Your task to perform on an android device: Open battery settings Image 0: 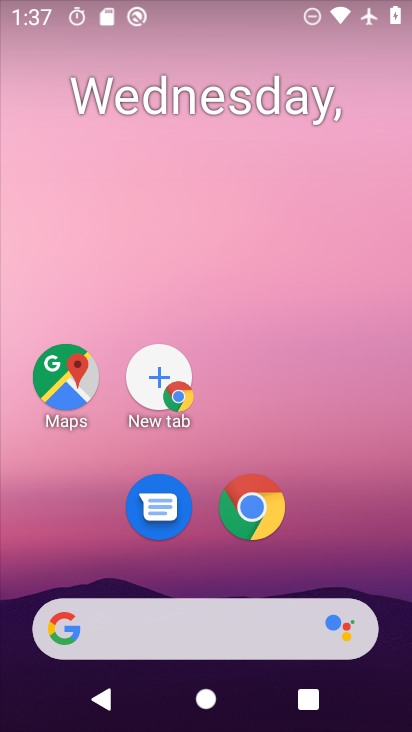
Step 0: drag from (384, 544) to (405, 462)
Your task to perform on an android device: Open battery settings Image 1: 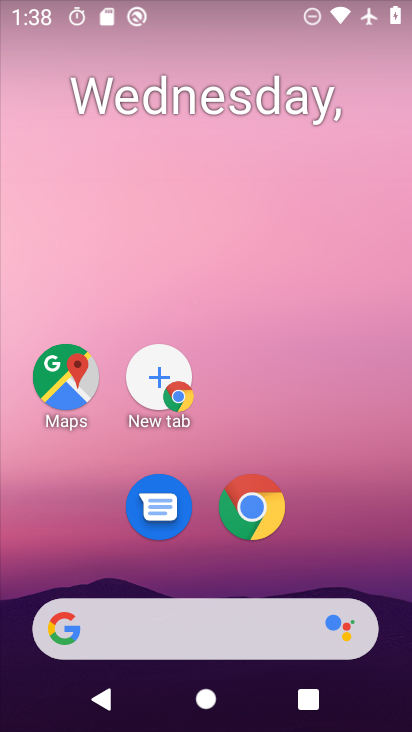
Step 1: drag from (347, 463) to (302, 51)
Your task to perform on an android device: Open battery settings Image 2: 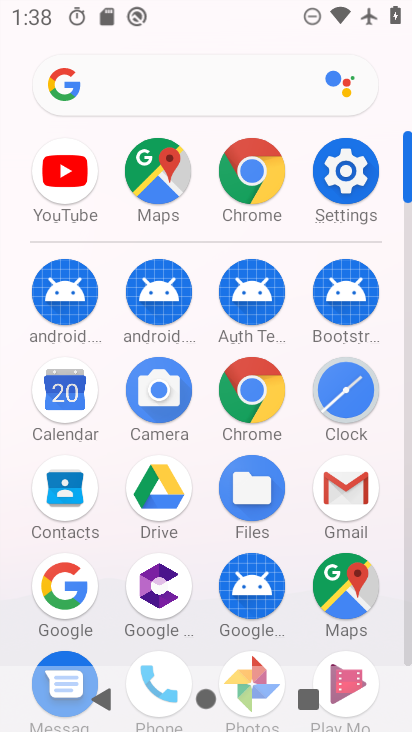
Step 2: click (340, 168)
Your task to perform on an android device: Open battery settings Image 3: 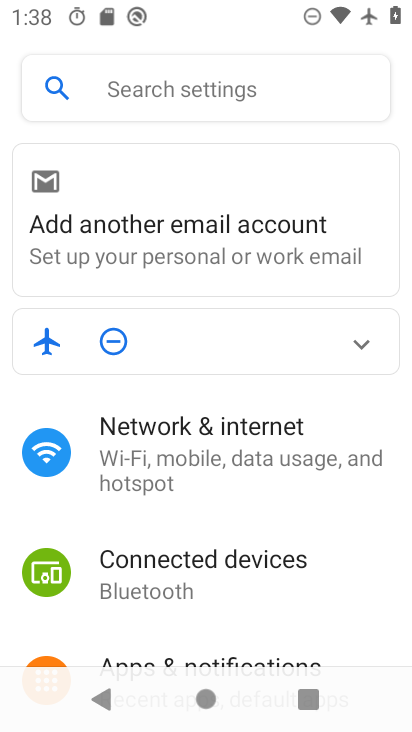
Step 3: drag from (234, 555) to (313, 182)
Your task to perform on an android device: Open battery settings Image 4: 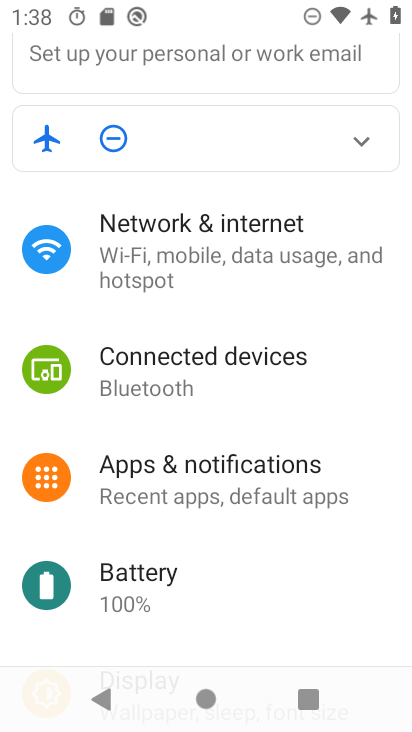
Step 4: drag from (296, 556) to (378, 164)
Your task to perform on an android device: Open battery settings Image 5: 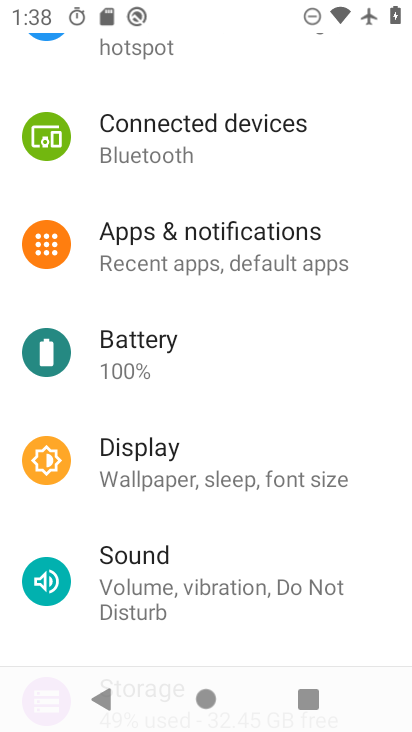
Step 5: drag from (304, 480) to (365, 170)
Your task to perform on an android device: Open battery settings Image 6: 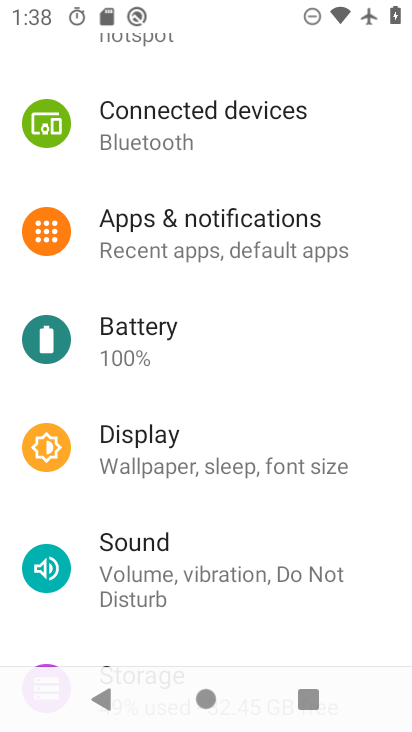
Step 6: drag from (263, 533) to (276, 215)
Your task to perform on an android device: Open battery settings Image 7: 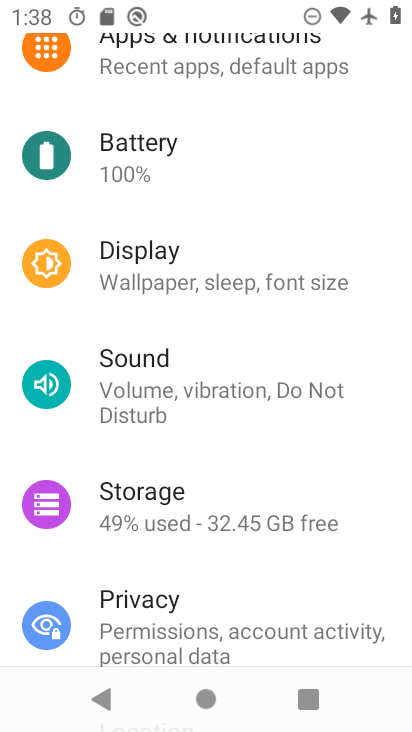
Step 7: click (133, 164)
Your task to perform on an android device: Open battery settings Image 8: 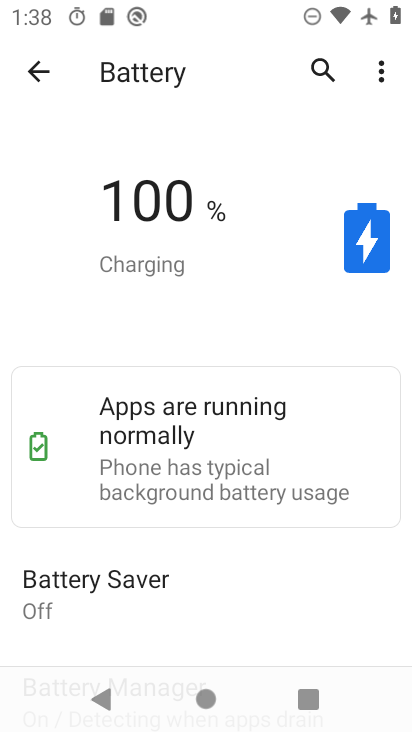
Step 8: task complete